Your task to perform on an android device: Go to internet settings Image 0: 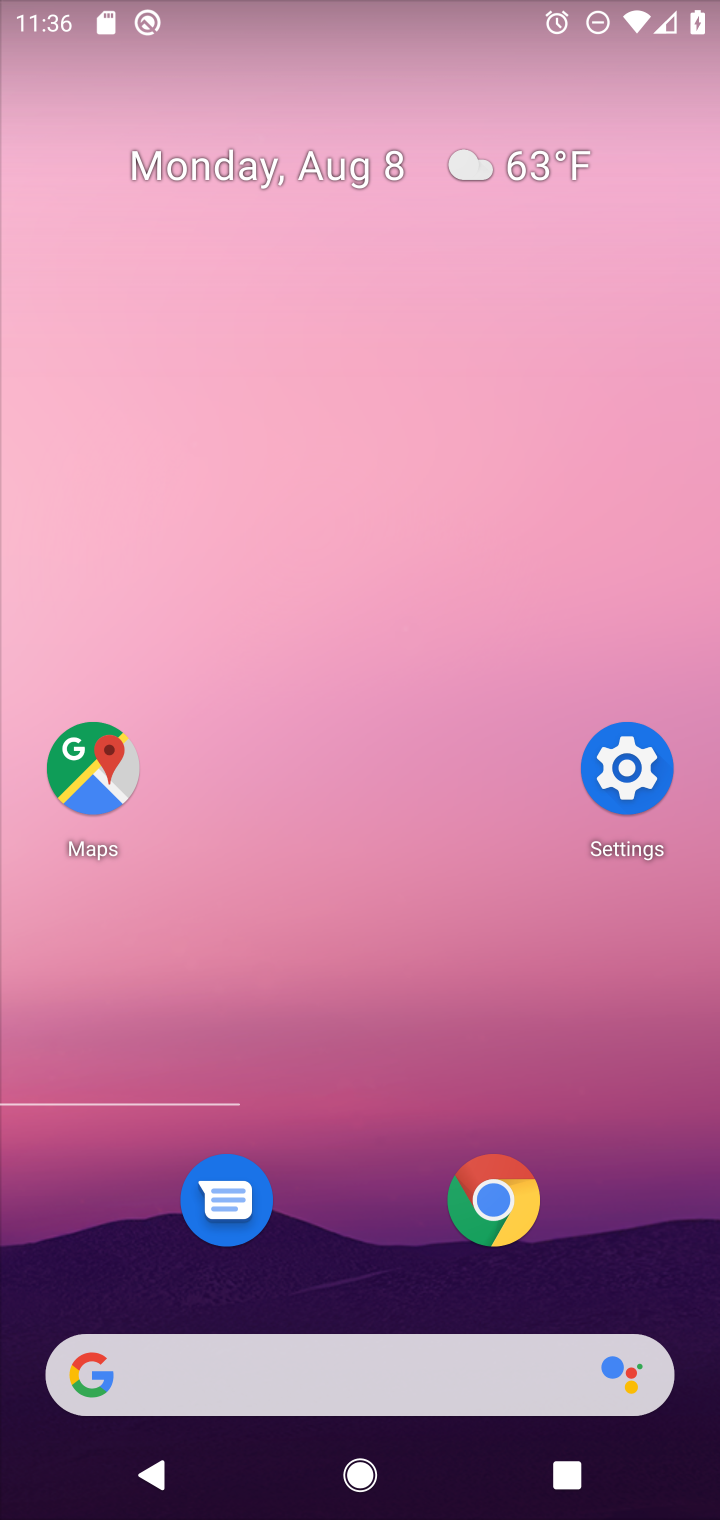
Step 0: click (616, 780)
Your task to perform on an android device: Go to internet settings Image 1: 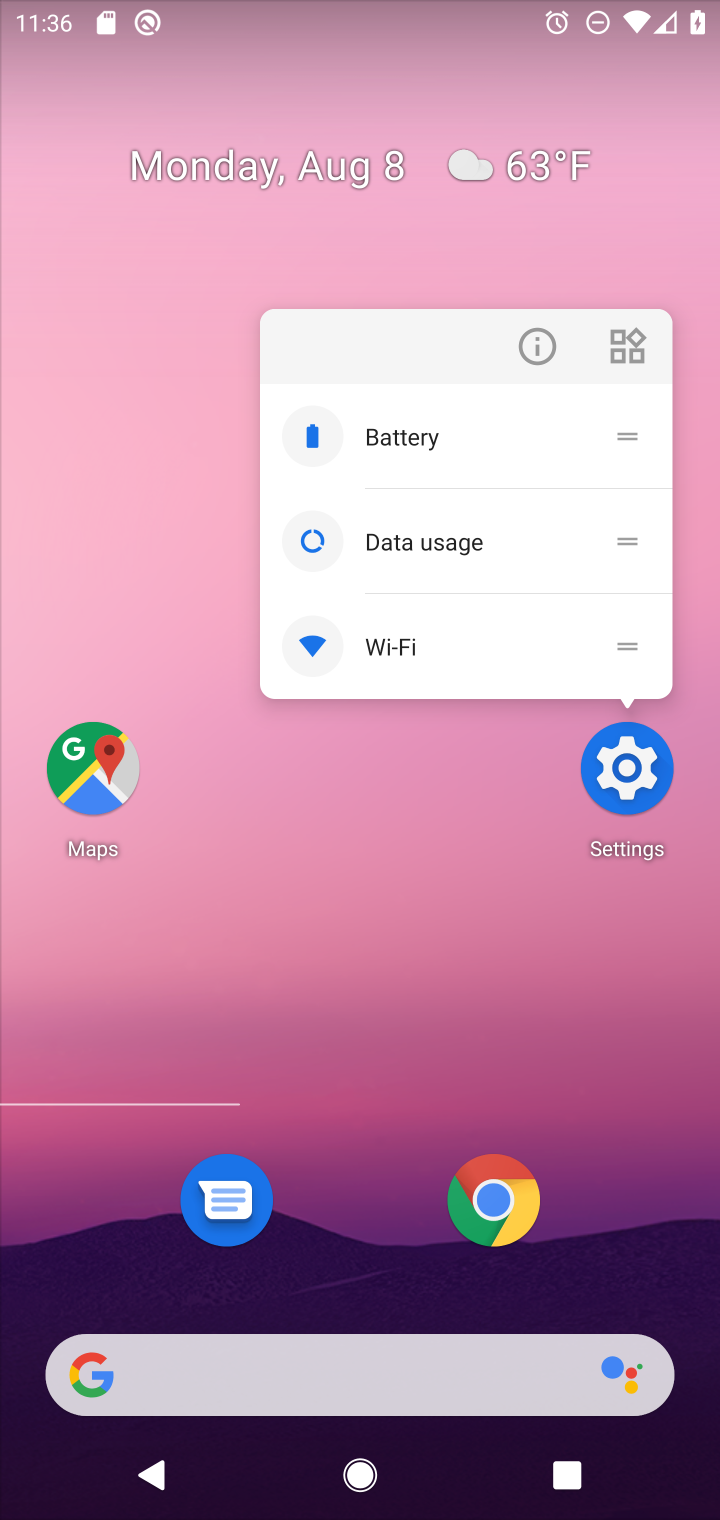
Step 1: click (625, 775)
Your task to perform on an android device: Go to internet settings Image 2: 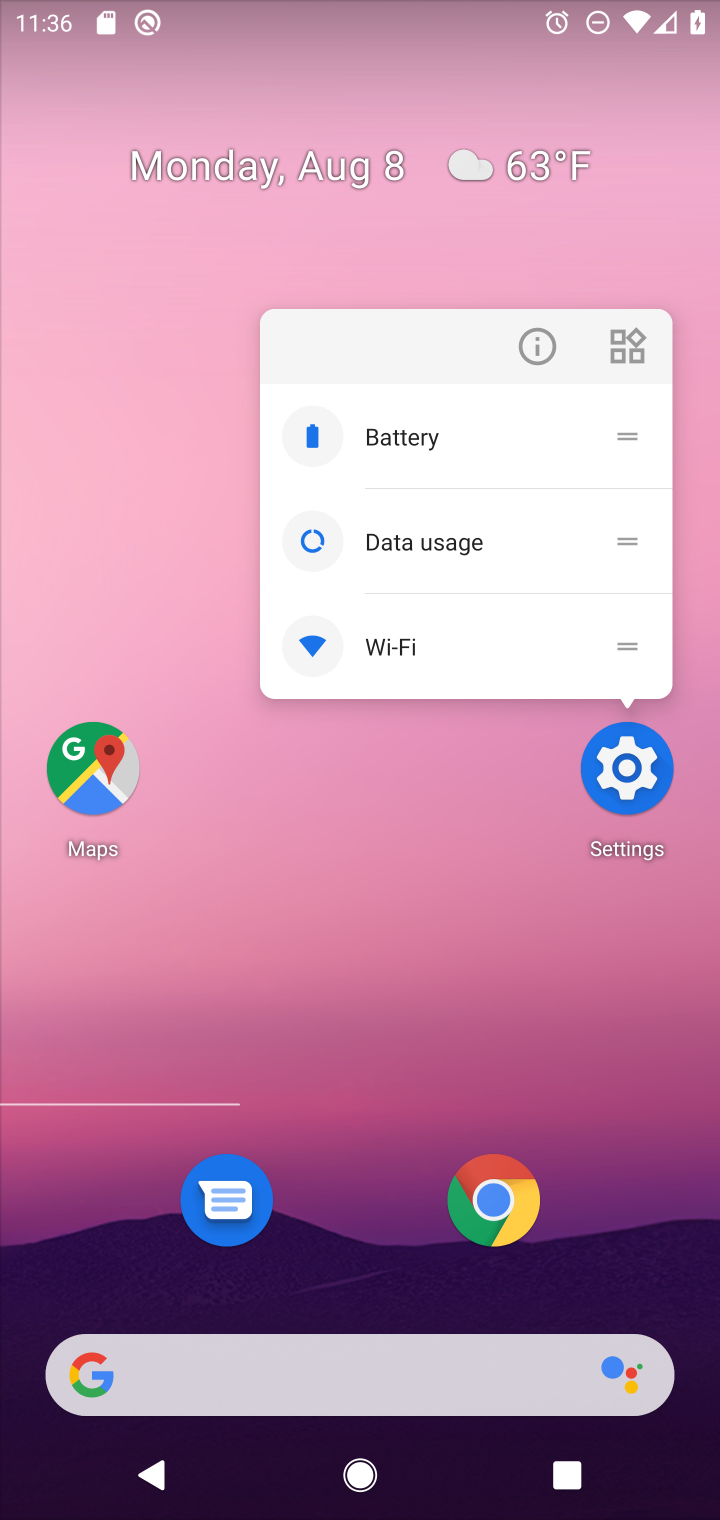
Step 2: click (625, 777)
Your task to perform on an android device: Go to internet settings Image 3: 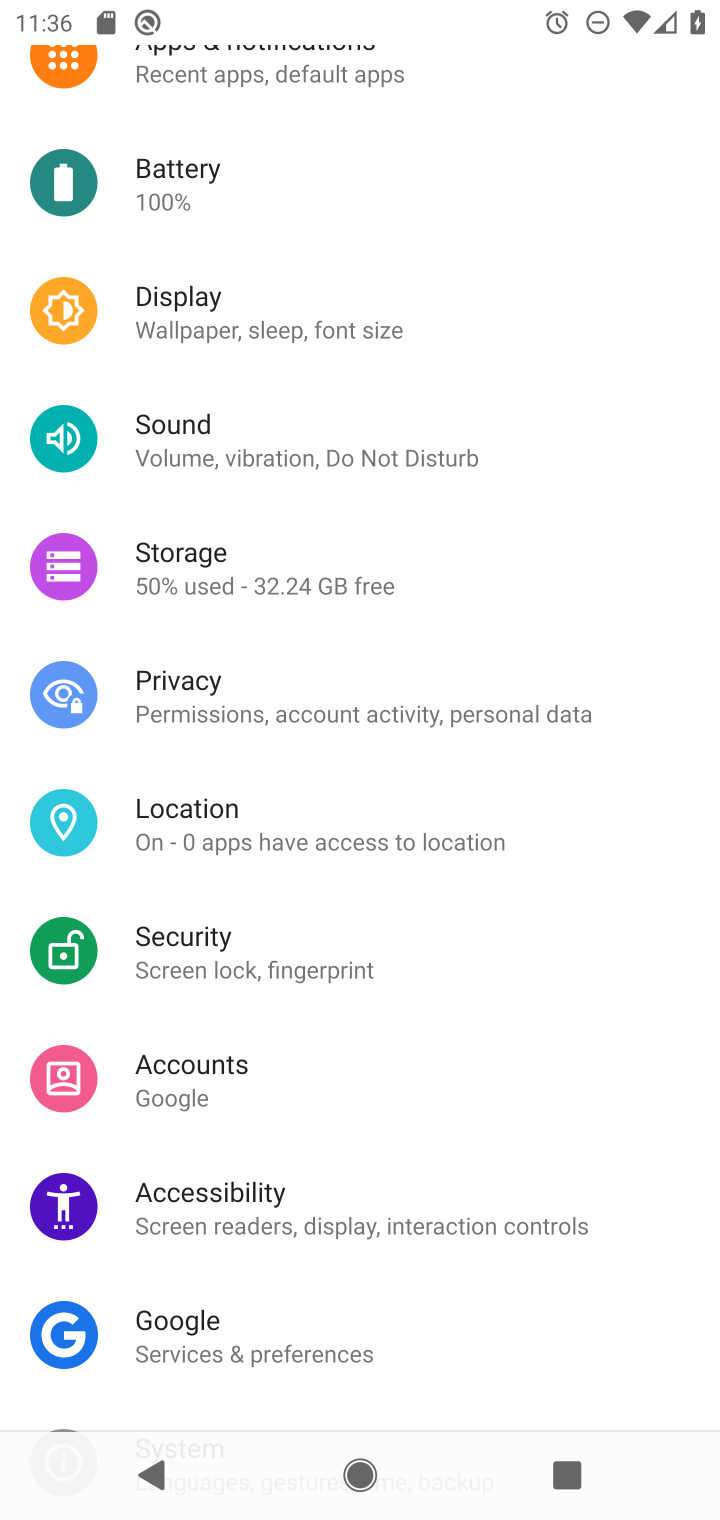
Step 3: drag from (568, 169) to (444, 1331)
Your task to perform on an android device: Go to internet settings Image 4: 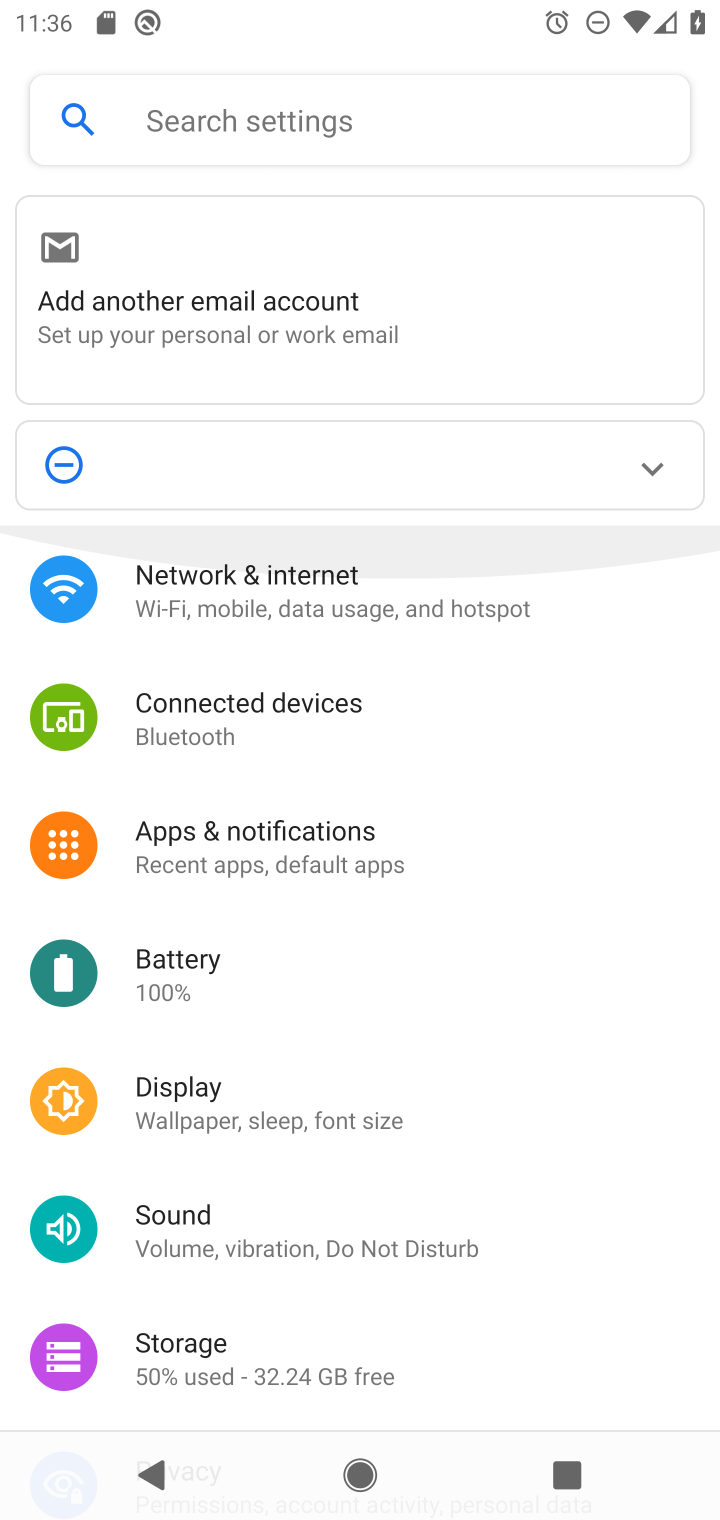
Step 4: click (253, 593)
Your task to perform on an android device: Go to internet settings Image 5: 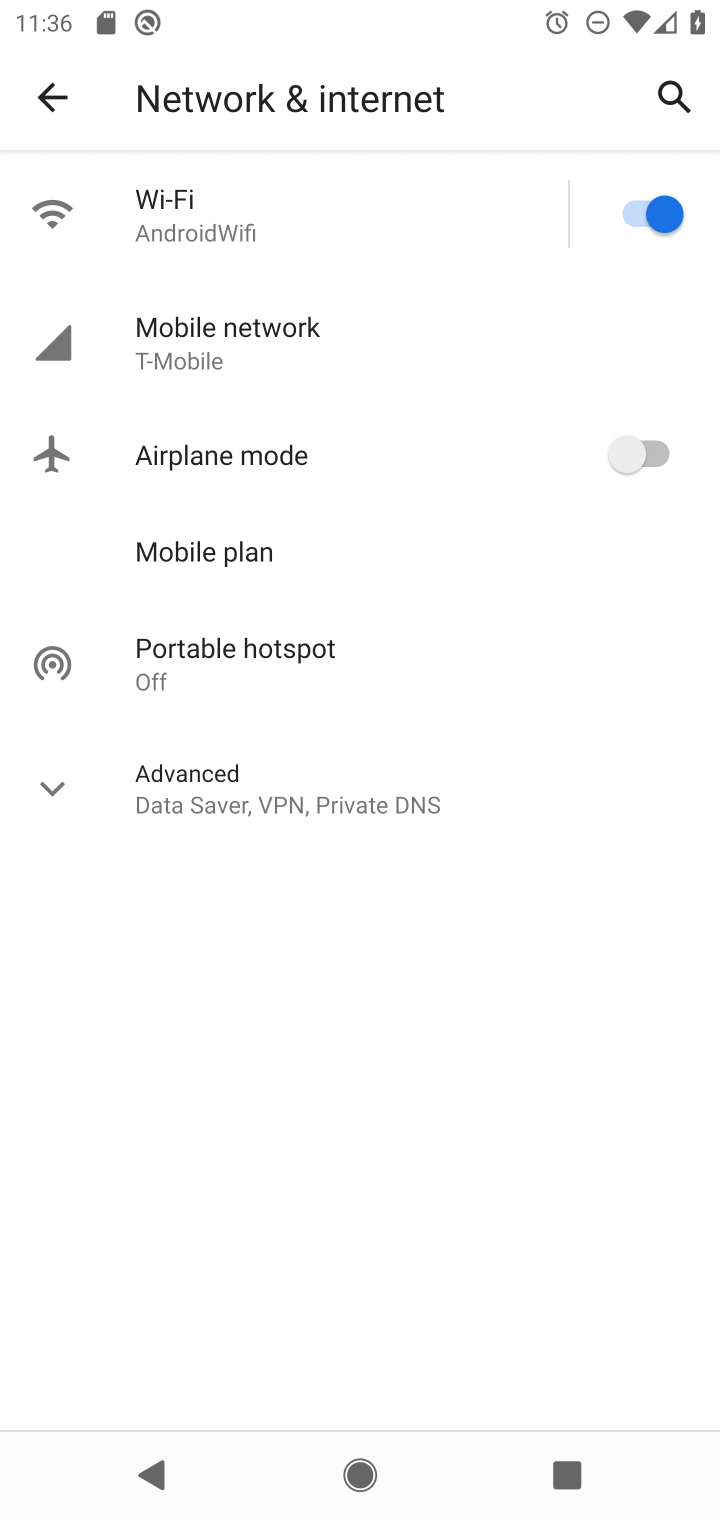
Step 5: task complete